Your task to perform on an android device: Open ESPN.com Image 0: 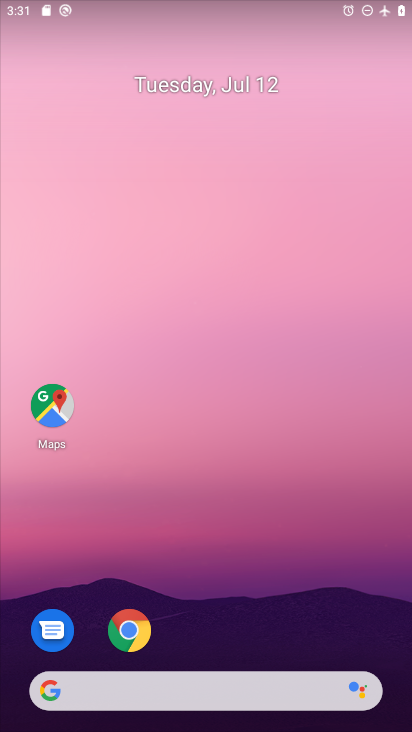
Step 0: click (152, 623)
Your task to perform on an android device: Open ESPN.com Image 1: 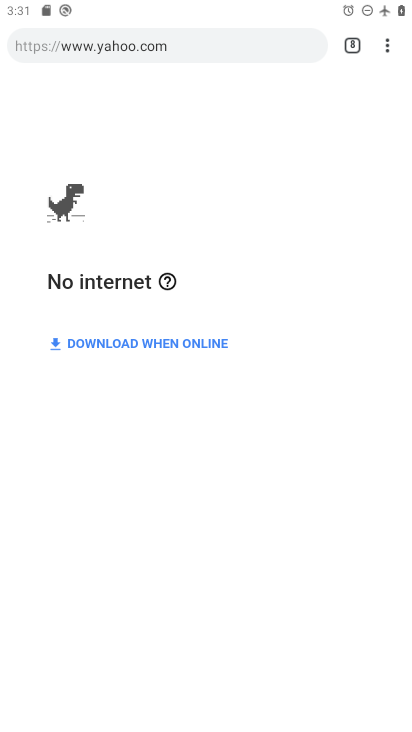
Step 1: click (346, 43)
Your task to perform on an android device: Open ESPN.com Image 2: 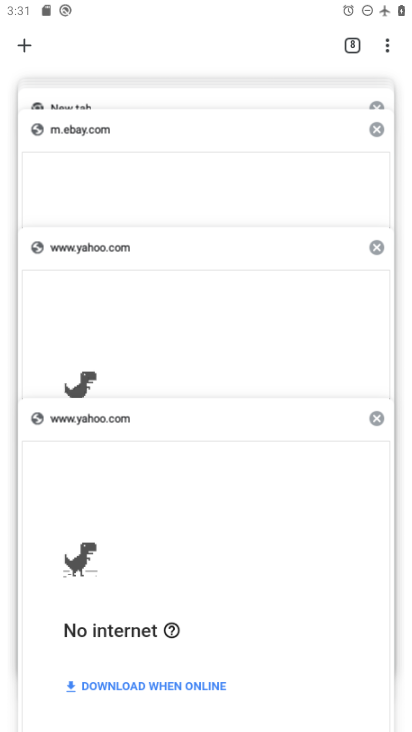
Step 2: click (22, 51)
Your task to perform on an android device: Open ESPN.com Image 3: 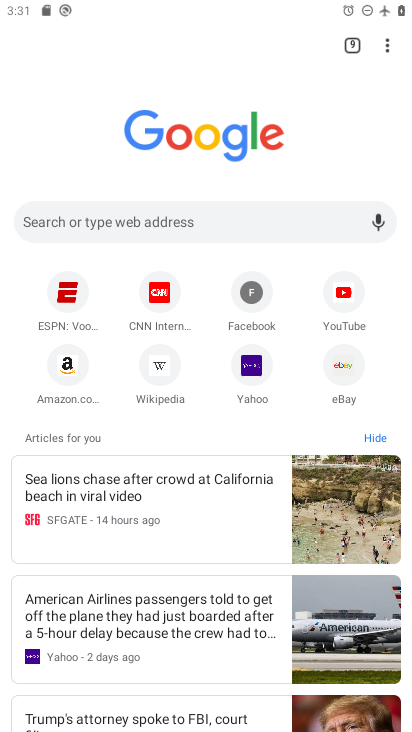
Step 3: click (72, 305)
Your task to perform on an android device: Open ESPN.com Image 4: 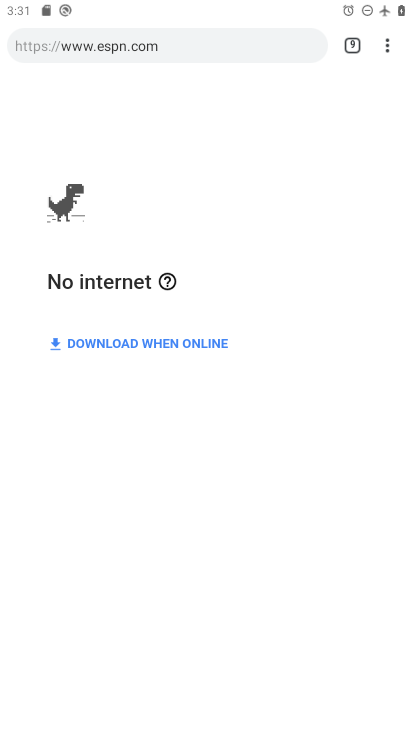
Step 4: task complete